Your task to perform on an android device: Go to Google Image 0: 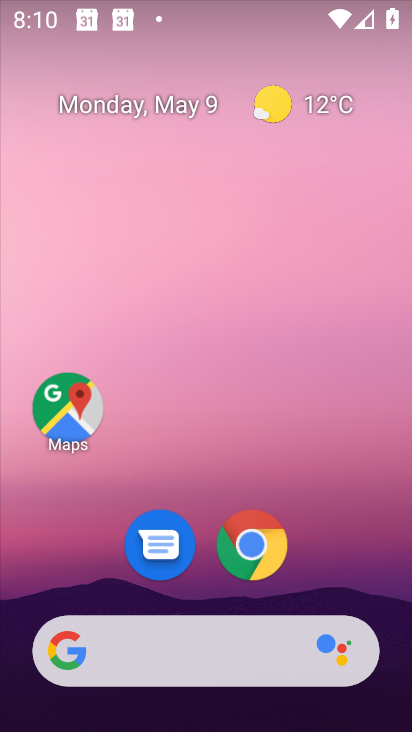
Step 0: drag from (202, 724) to (203, 202)
Your task to perform on an android device: Go to Google Image 1: 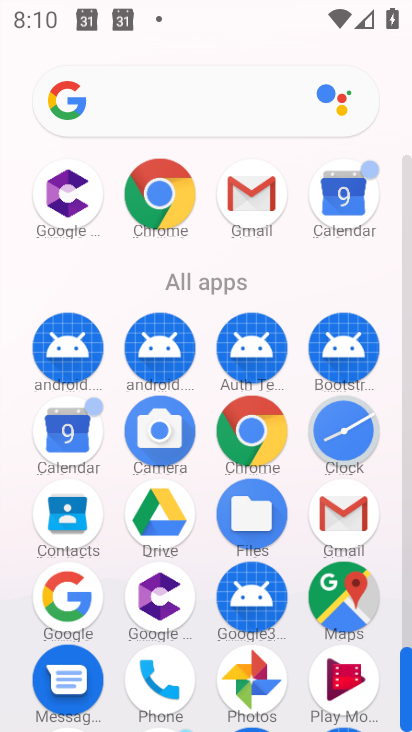
Step 1: click (65, 598)
Your task to perform on an android device: Go to Google Image 2: 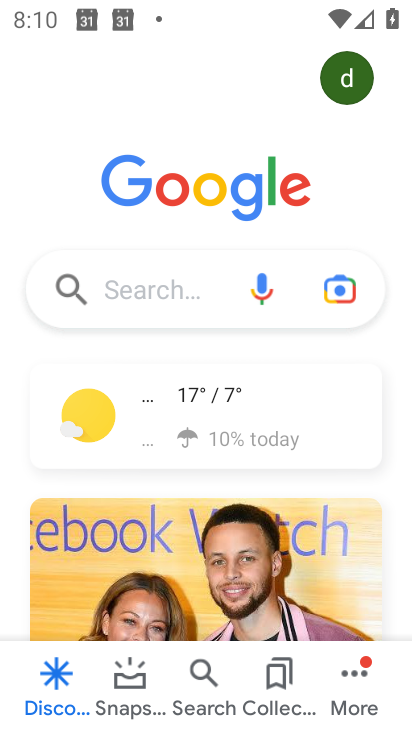
Step 2: task complete